Your task to perform on an android device: Open Google Maps and go to "Timeline" Image 0: 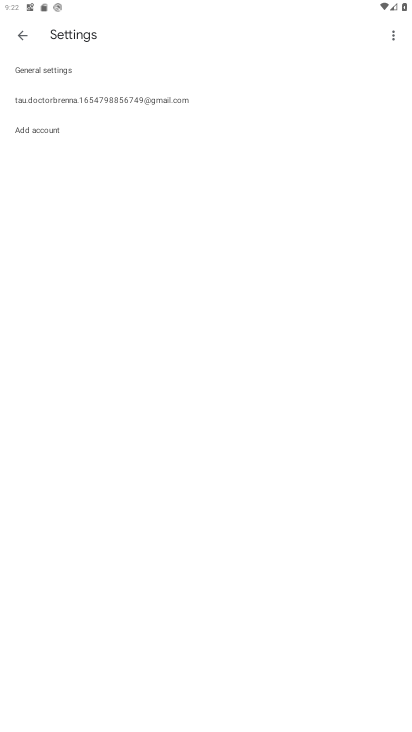
Step 0: press home button
Your task to perform on an android device: Open Google Maps and go to "Timeline" Image 1: 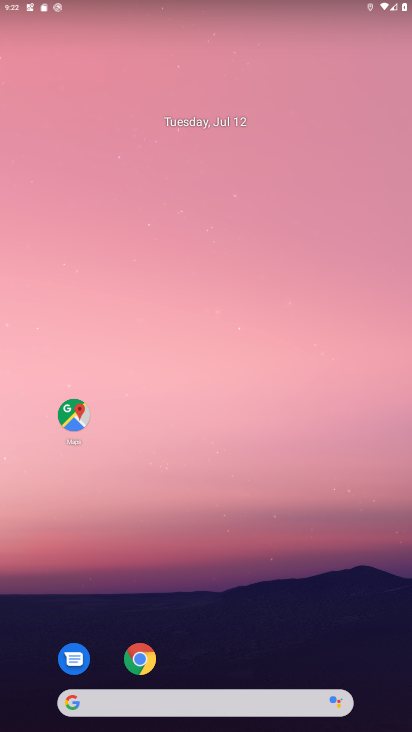
Step 1: drag from (177, 603) to (252, 22)
Your task to perform on an android device: Open Google Maps and go to "Timeline" Image 2: 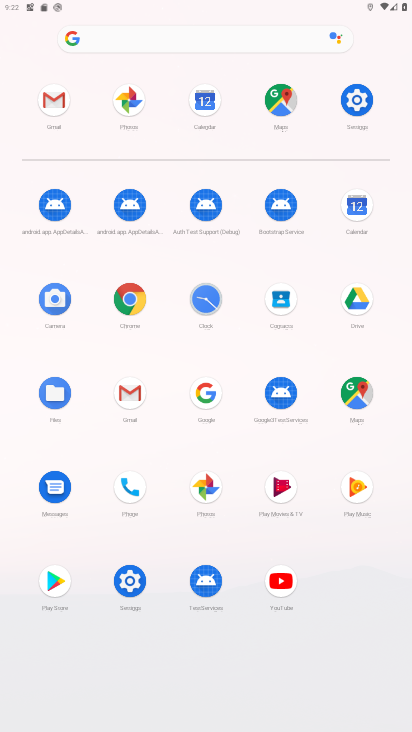
Step 2: click (363, 383)
Your task to perform on an android device: Open Google Maps and go to "Timeline" Image 3: 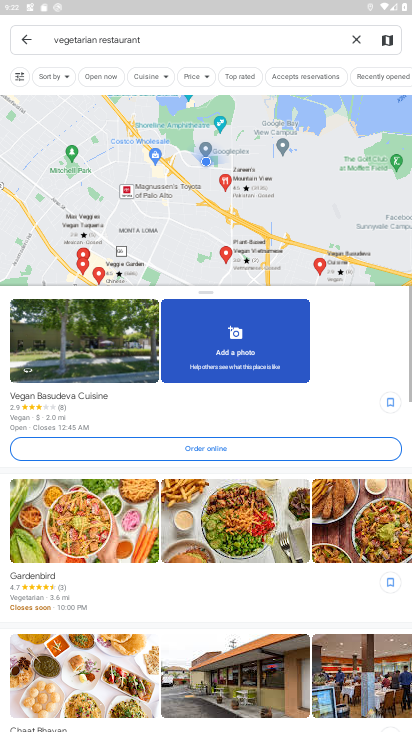
Step 3: click (29, 38)
Your task to perform on an android device: Open Google Maps and go to "Timeline" Image 4: 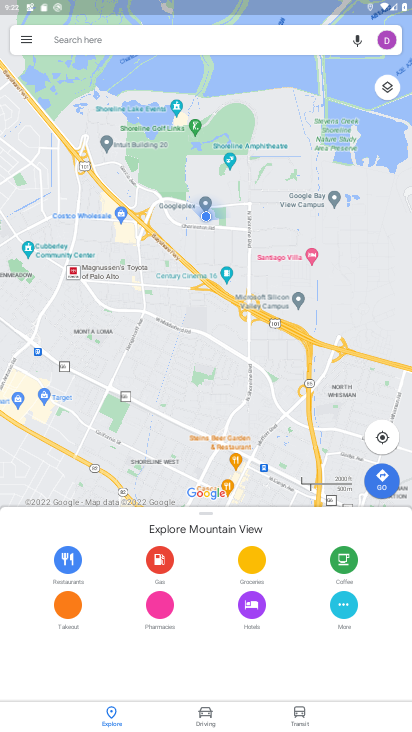
Step 4: click (29, 38)
Your task to perform on an android device: Open Google Maps and go to "Timeline" Image 5: 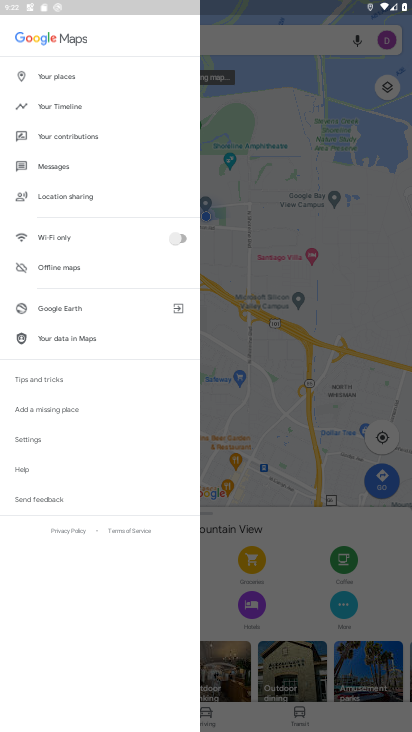
Step 5: click (71, 101)
Your task to perform on an android device: Open Google Maps and go to "Timeline" Image 6: 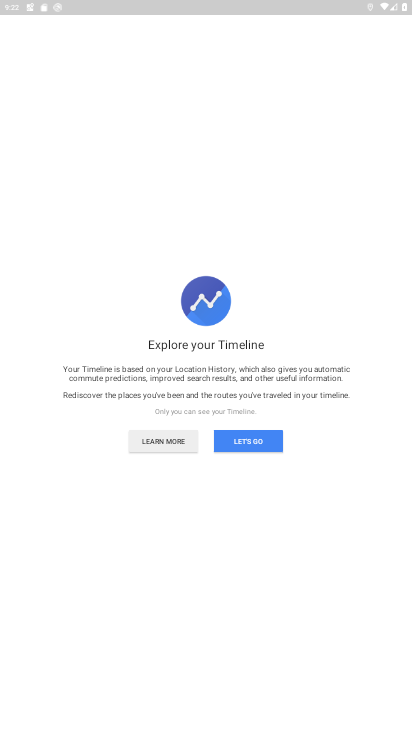
Step 6: click (260, 440)
Your task to perform on an android device: Open Google Maps and go to "Timeline" Image 7: 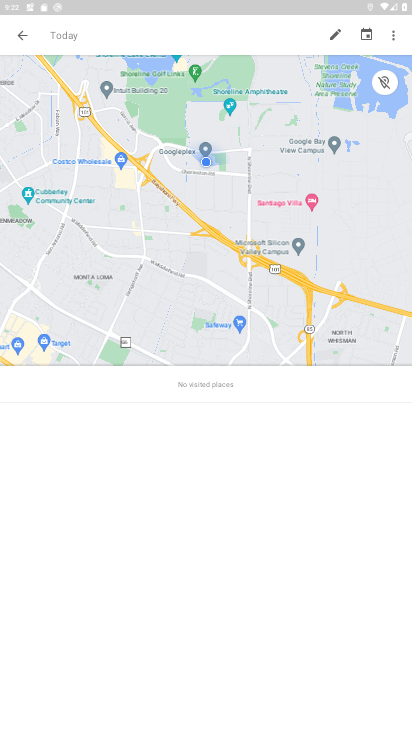
Step 7: task complete